Your task to perform on an android device: add a contact in the contacts app Image 0: 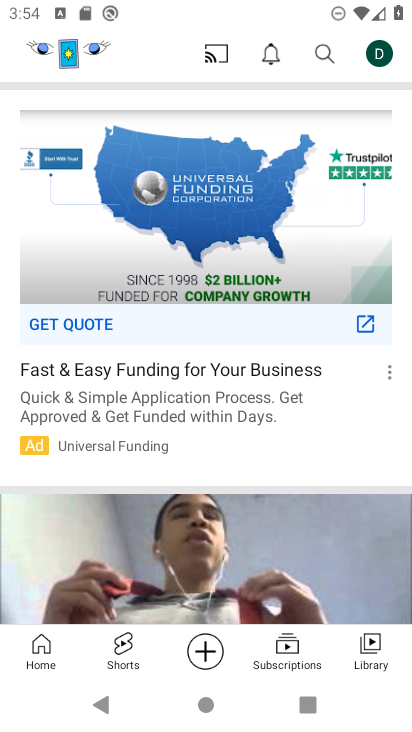
Step 0: press home button
Your task to perform on an android device: add a contact in the contacts app Image 1: 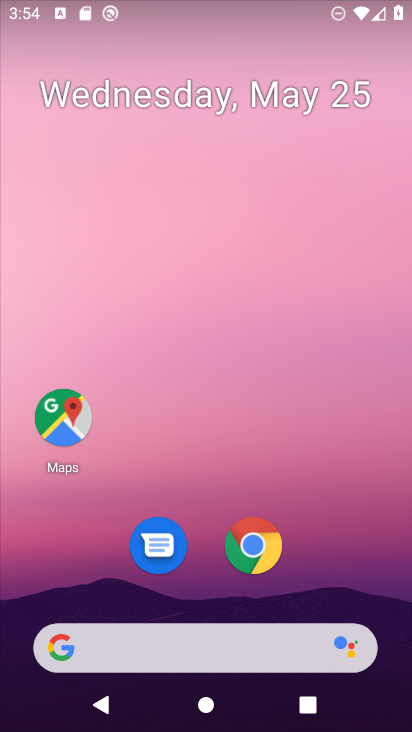
Step 1: drag from (360, 583) to (320, 46)
Your task to perform on an android device: add a contact in the contacts app Image 2: 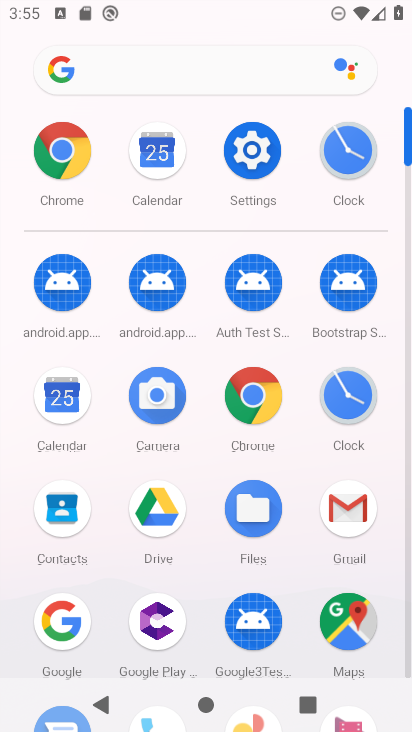
Step 2: click (62, 524)
Your task to perform on an android device: add a contact in the contacts app Image 3: 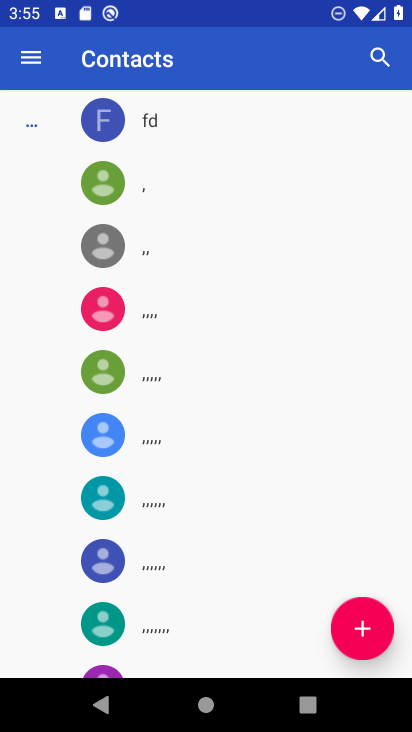
Step 3: click (347, 616)
Your task to perform on an android device: add a contact in the contacts app Image 4: 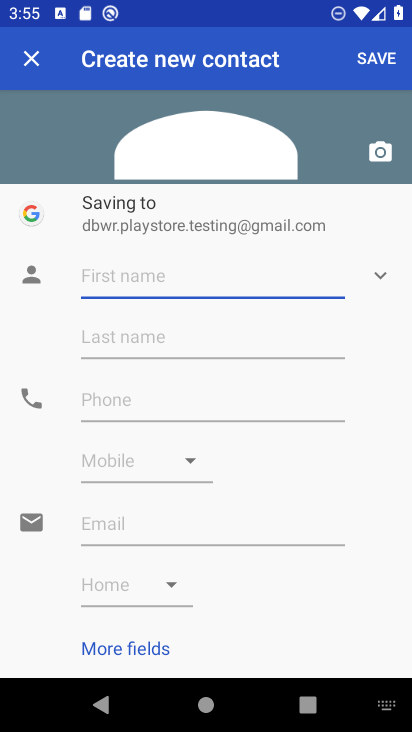
Step 4: type "/"
Your task to perform on an android device: add a contact in the contacts app Image 5: 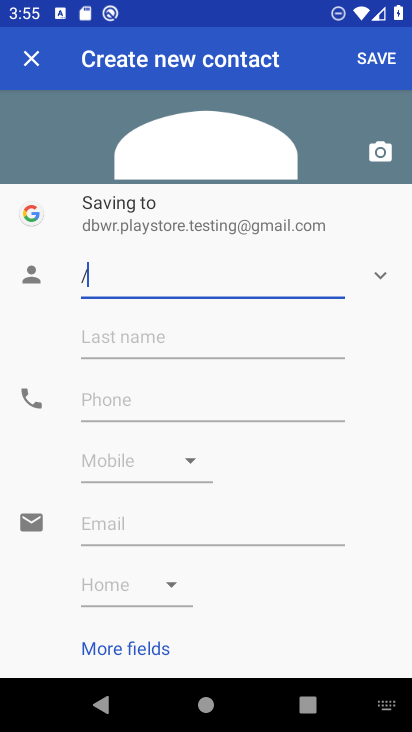
Step 5: type "/"
Your task to perform on an android device: add a contact in the contacts app Image 6: 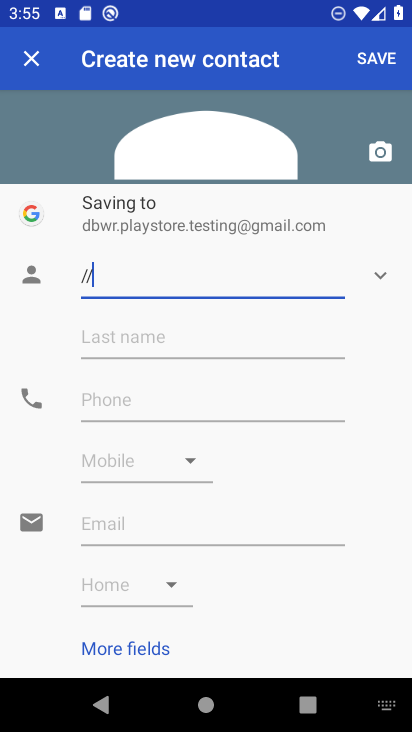
Step 6: type "khjvchchg"
Your task to perform on an android device: add a contact in the contacts app Image 7: 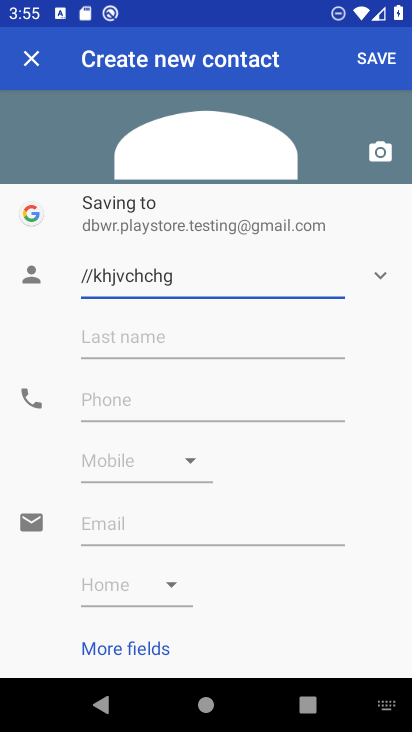
Step 7: click (382, 60)
Your task to perform on an android device: add a contact in the contacts app Image 8: 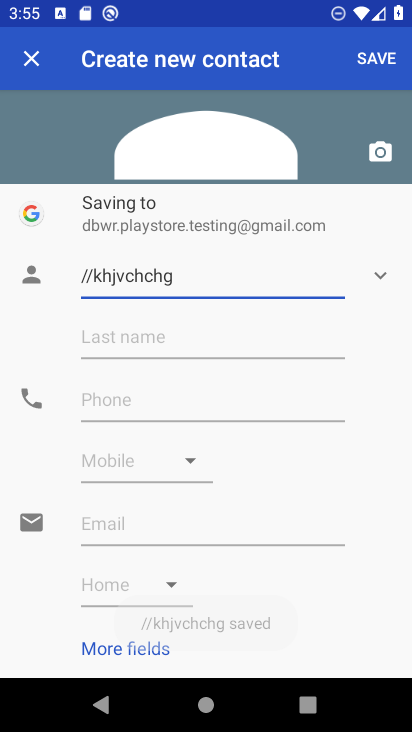
Step 8: task complete